Your task to perform on an android device: clear history in the chrome app Image 0: 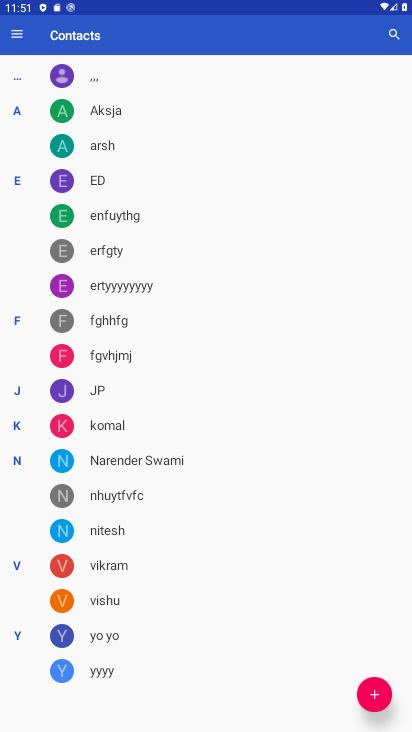
Step 0: press home button
Your task to perform on an android device: clear history in the chrome app Image 1: 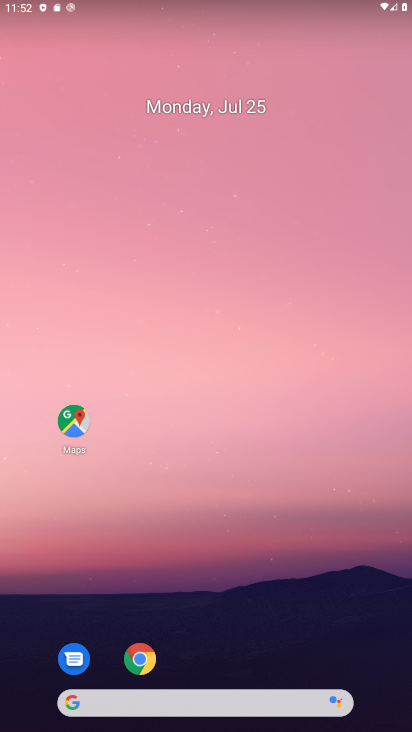
Step 1: drag from (318, 646) to (346, 130)
Your task to perform on an android device: clear history in the chrome app Image 2: 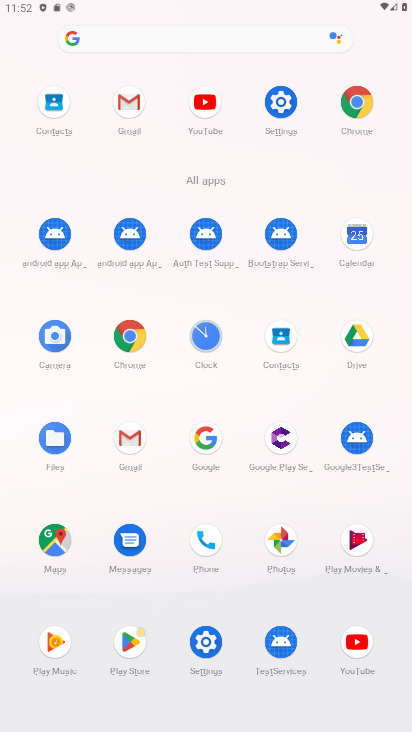
Step 2: click (122, 326)
Your task to perform on an android device: clear history in the chrome app Image 3: 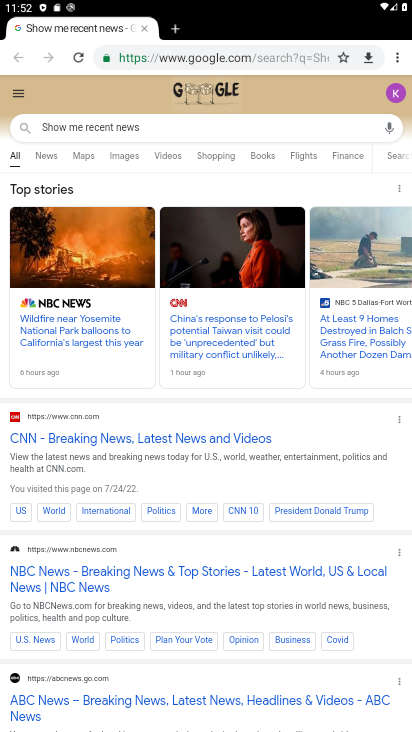
Step 3: task complete